Your task to perform on an android device: delete the emails in spam in the gmail app Image 0: 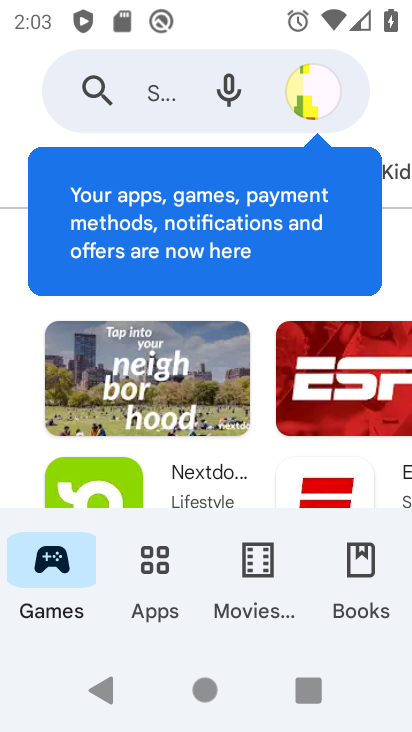
Step 0: press home button
Your task to perform on an android device: delete the emails in spam in the gmail app Image 1: 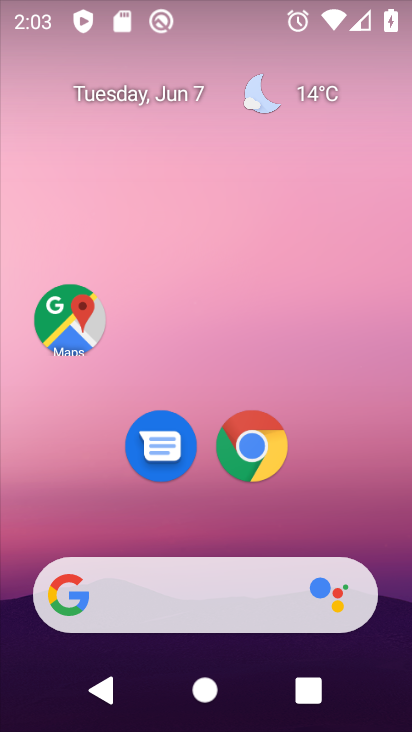
Step 1: drag from (400, 612) to (328, 14)
Your task to perform on an android device: delete the emails in spam in the gmail app Image 2: 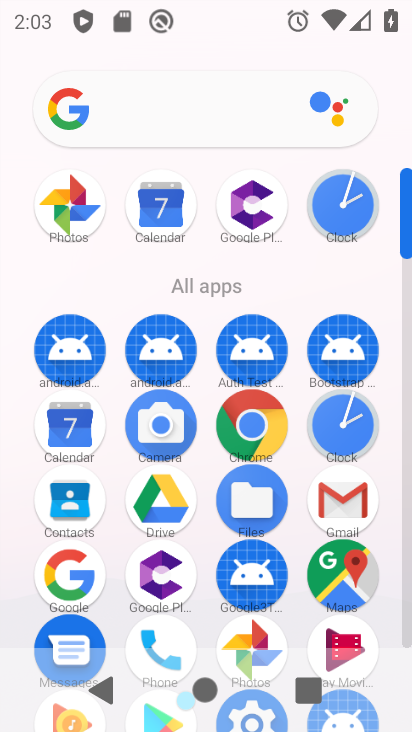
Step 2: click (343, 500)
Your task to perform on an android device: delete the emails in spam in the gmail app Image 3: 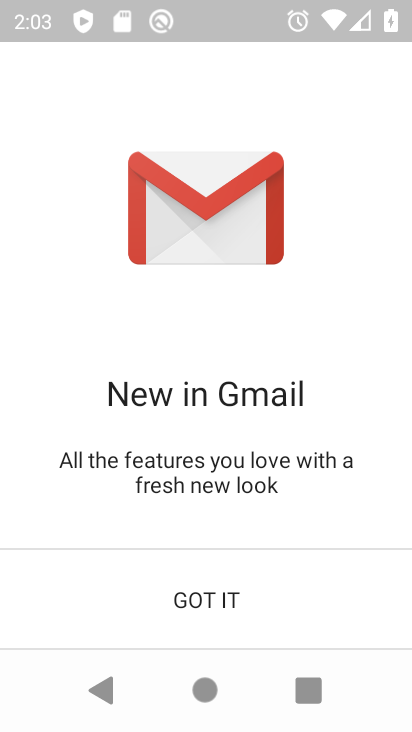
Step 3: click (200, 596)
Your task to perform on an android device: delete the emails in spam in the gmail app Image 4: 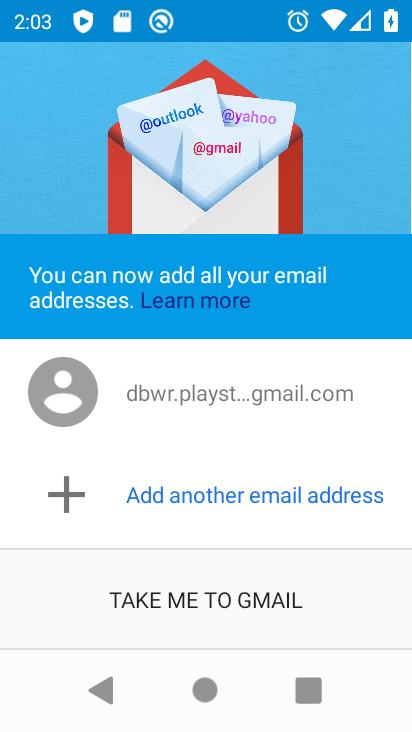
Step 4: click (212, 587)
Your task to perform on an android device: delete the emails in spam in the gmail app Image 5: 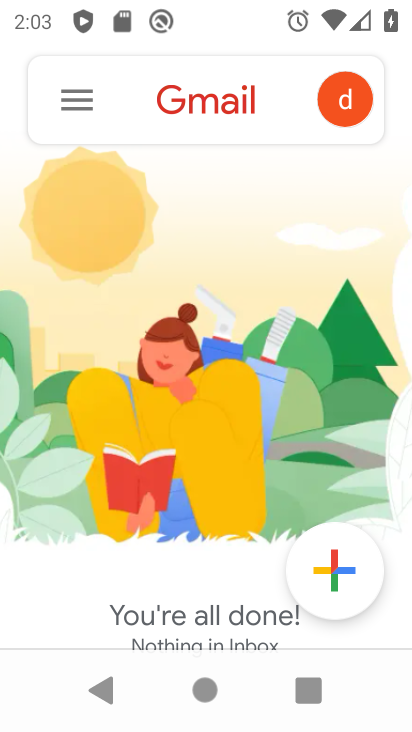
Step 5: click (79, 100)
Your task to perform on an android device: delete the emails in spam in the gmail app Image 6: 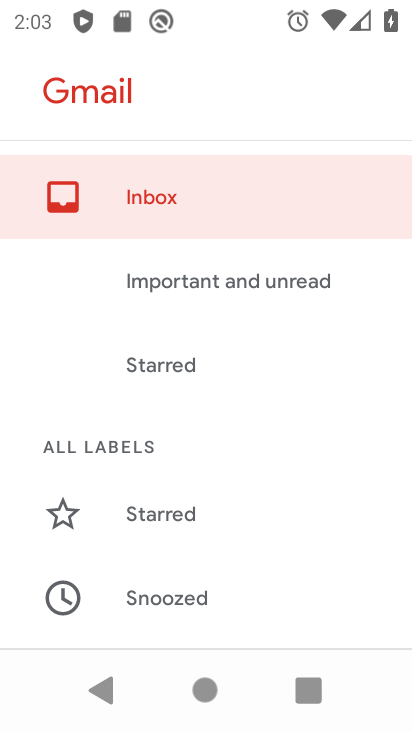
Step 6: drag from (229, 619) to (213, 114)
Your task to perform on an android device: delete the emails in spam in the gmail app Image 7: 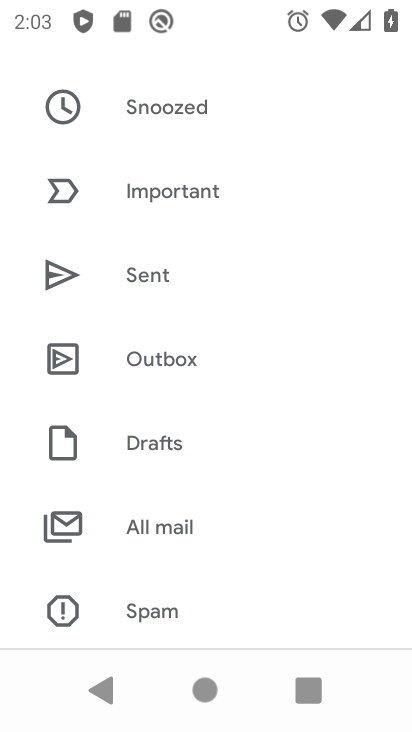
Step 7: drag from (248, 605) to (239, 227)
Your task to perform on an android device: delete the emails in spam in the gmail app Image 8: 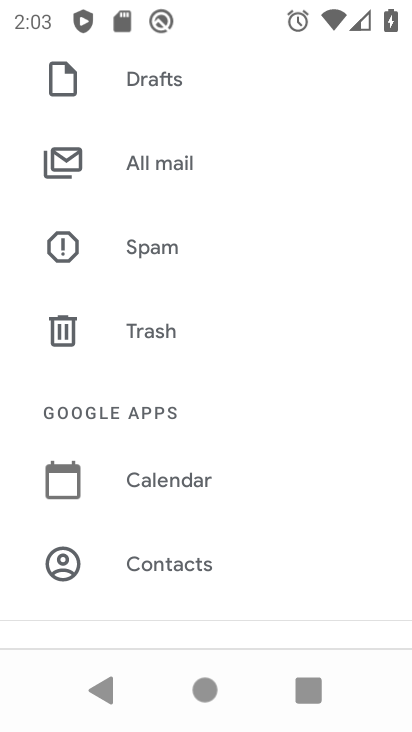
Step 8: click (159, 243)
Your task to perform on an android device: delete the emails in spam in the gmail app Image 9: 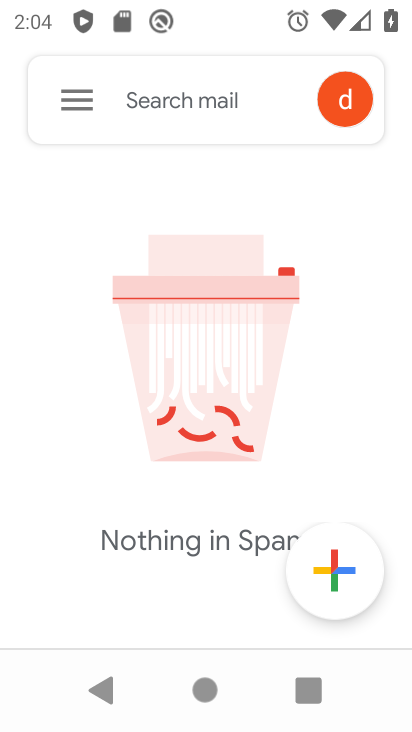
Step 9: task complete